Your task to perform on an android device: open chrome and create a bookmark for the current page Image 0: 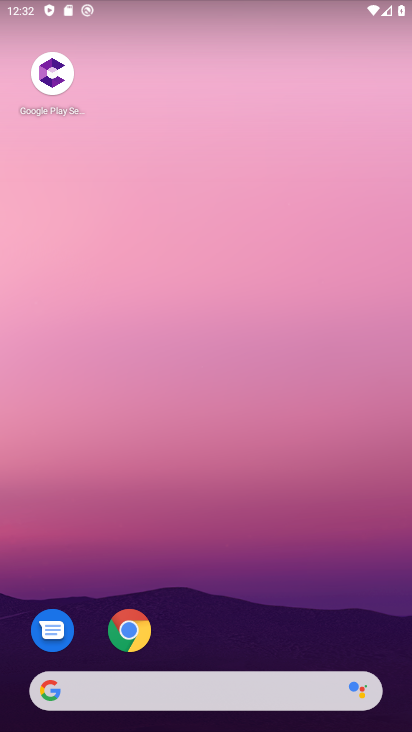
Step 0: click (128, 631)
Your task to perform on an android device: open chrome and create a bookmark for the current page Image 1: 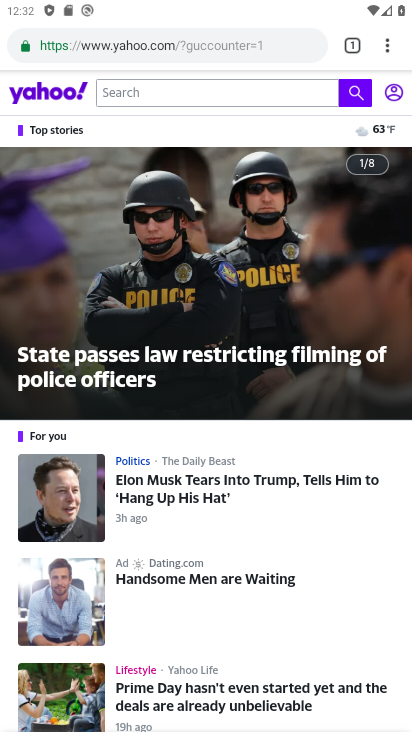
Step 1: click (386, 47)
Your task to perform on an android device: open chrome and create a bookmark for the current page Image 2: 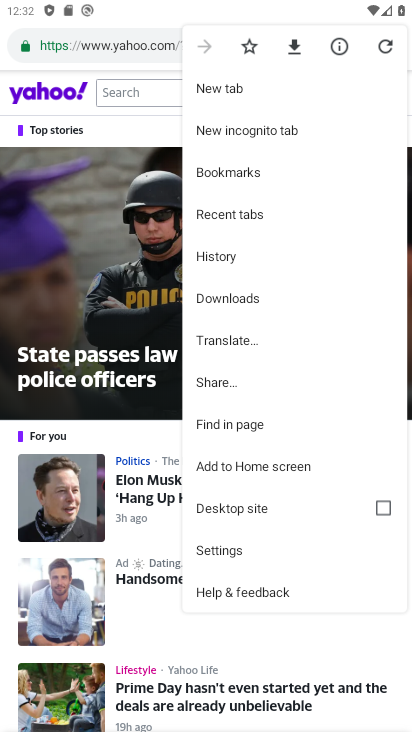
Step 2: click (248, 46)
Your task to perform on an android device: open chrome and create a bookmark for the current page Image 3: 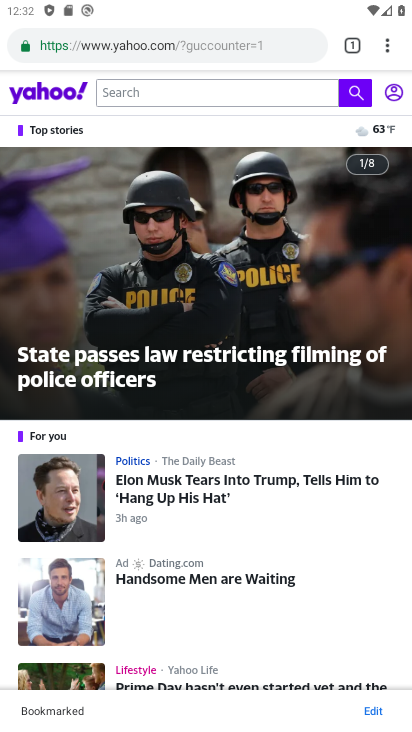
Step 3: task complete